Your task to perform on an android device: Play the last video I watched on Youtube Image 0: 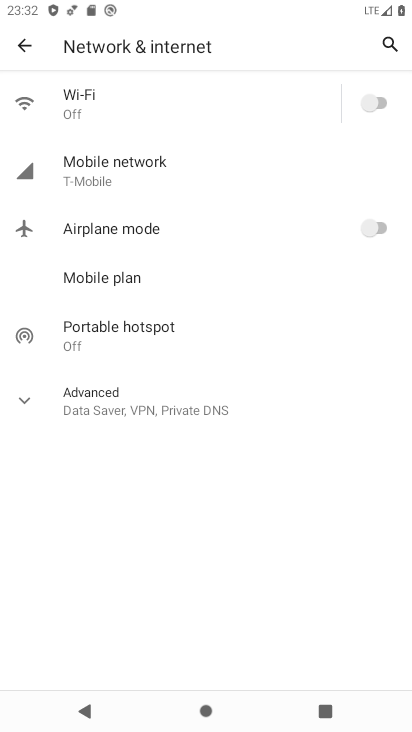
Step 0: press home button
Your task to perform on an android device: Play the last video I watched on Youtube Image 1: 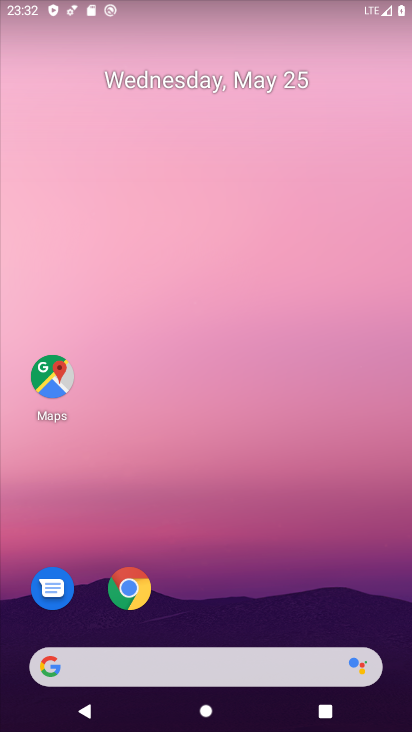
Step 1: drag from (244, 534) to (168, 49)
Your task to perform on an android device: Play the last video I watched on Youtube Image 2: 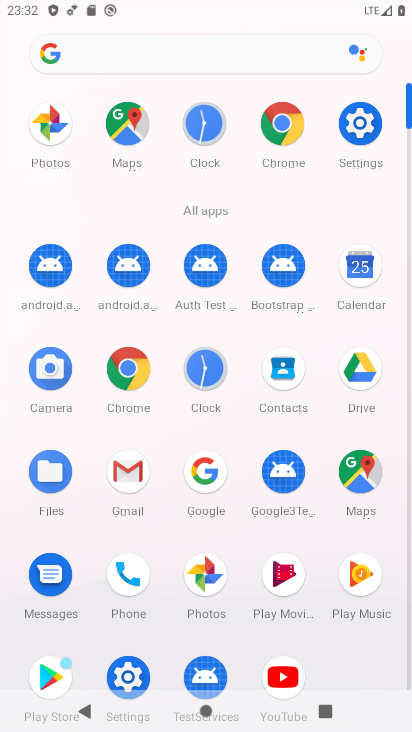
Step 2: click (277, 677)
Your task to perform on an android device: Play the last video I watched on Youtube Image 3: 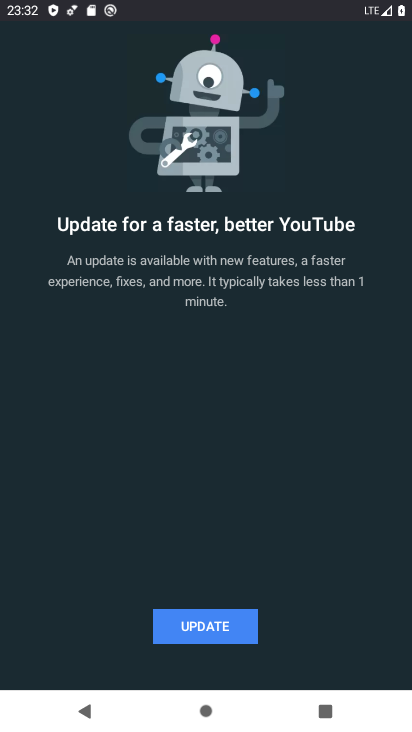
Step 3: click (212, 620)
Your task to perform on an android device: Play the last video I watched on Youtube Image 4: 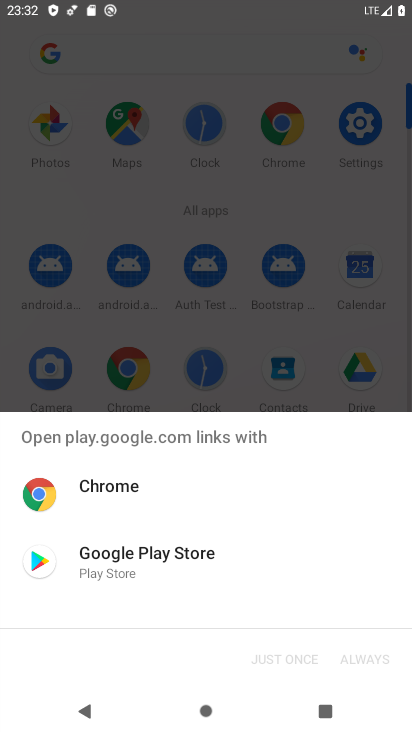
Step 4: click (111, 548)
Your task to perform on an android device: Play the last video I watched on Youtube Image 5: 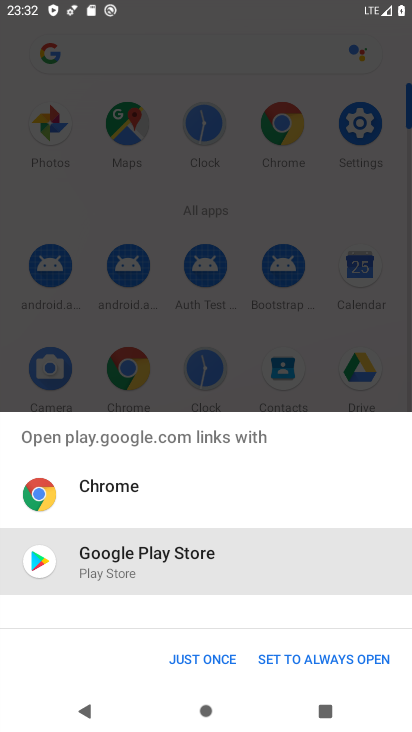
Step 5: click (216, 662)
Your task to perform on an android device: Play the last video I watched on Youtube Image 6: 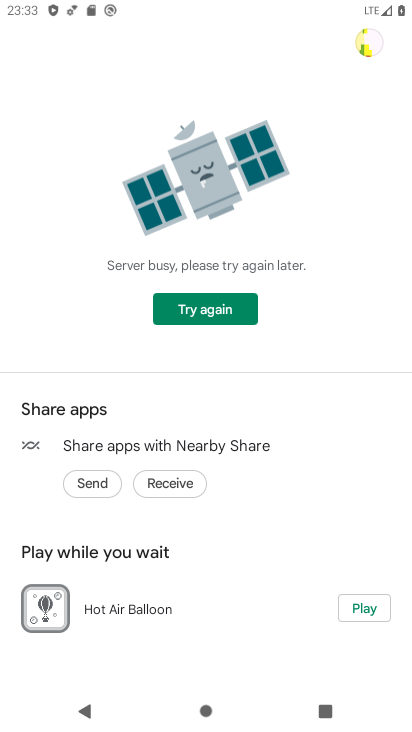
Step 6: click (187, 303)
Your task to perform on an android device: Play the last video I watched on Youtube Image 7: 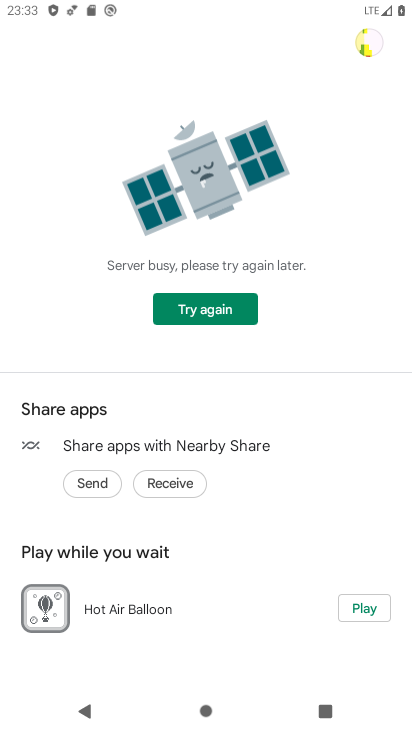
Step 7: click (187, 303)
Your task to perform on an android device: Play the last video I watched on Youtube Image 8: 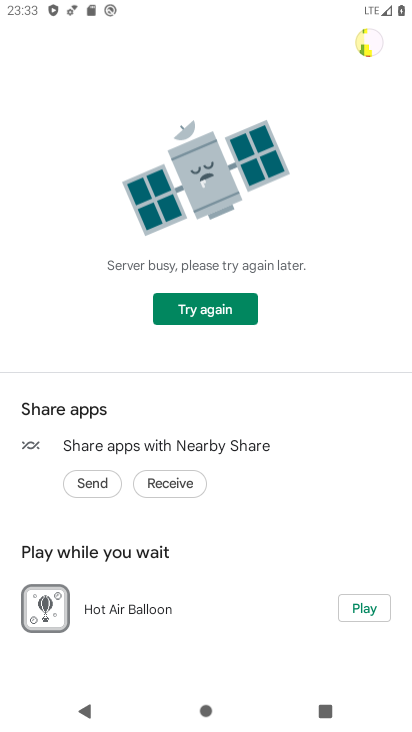
Step 8: click (219, 308)
Your task to perform on an android device: Play the last video I watched on Youtube Image 9: 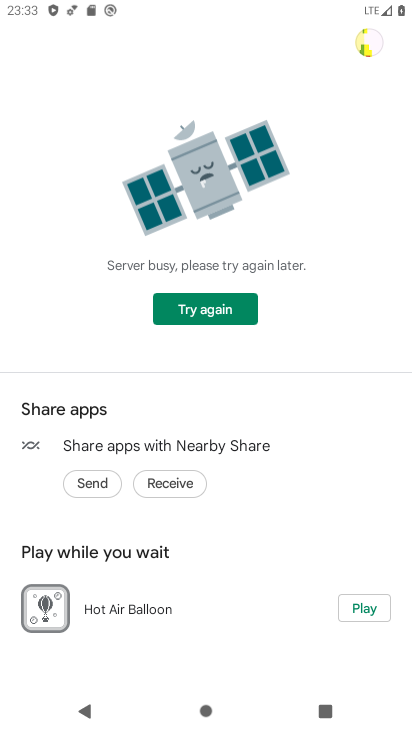
Step 9: click (219, 308)
Your task to perform on an android device: Play the last video I watched on Youtube Image 10: 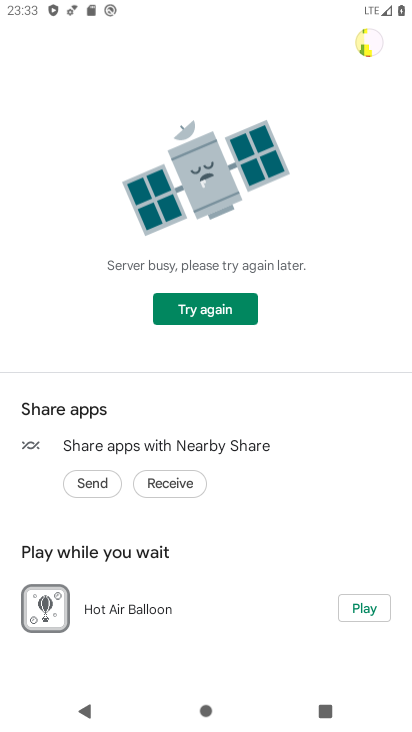
Step 10: click (219, 308)
Your task to perform on an android device: Play the last video I watched on Youtube Image 11: 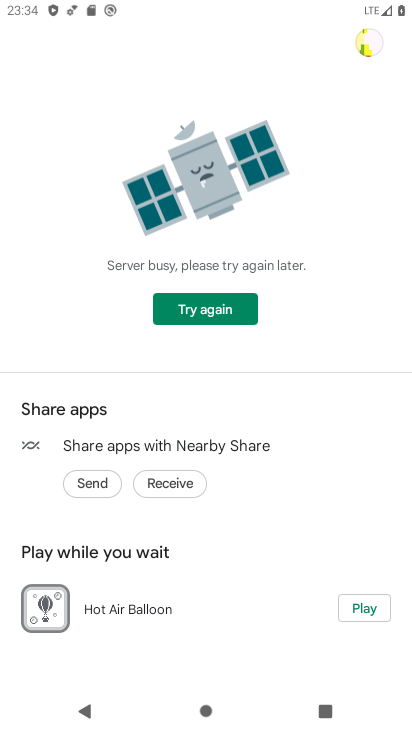
Step 11: task complete